Your task to perform on an android device: open app "Google Play Music" (install if not already installed) Image 0: 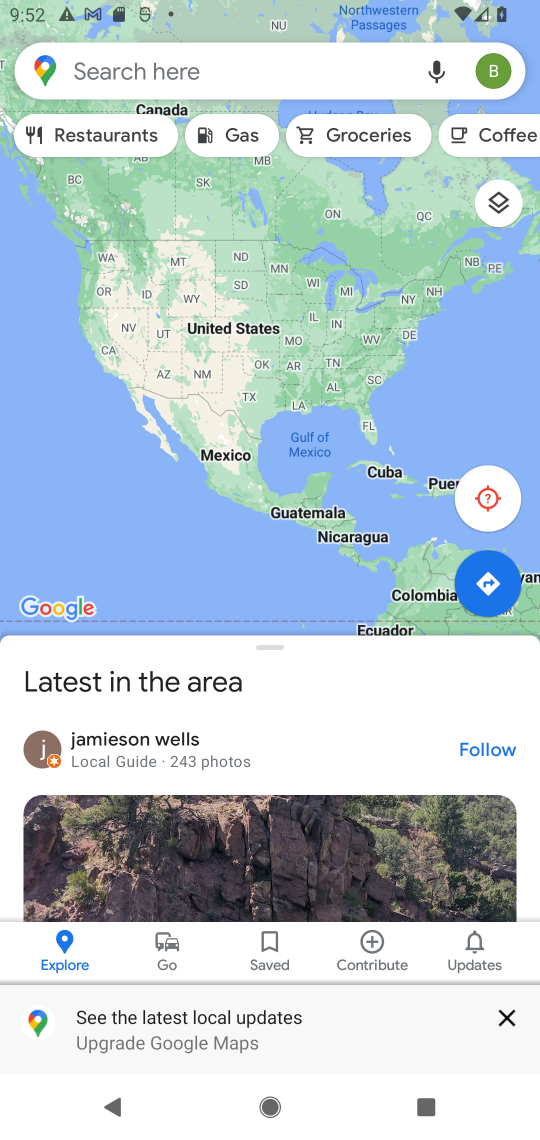
Step 0: press home button
Your task to perform on an android device: open app "Google Play Music" (install if not already installed) Image 1: 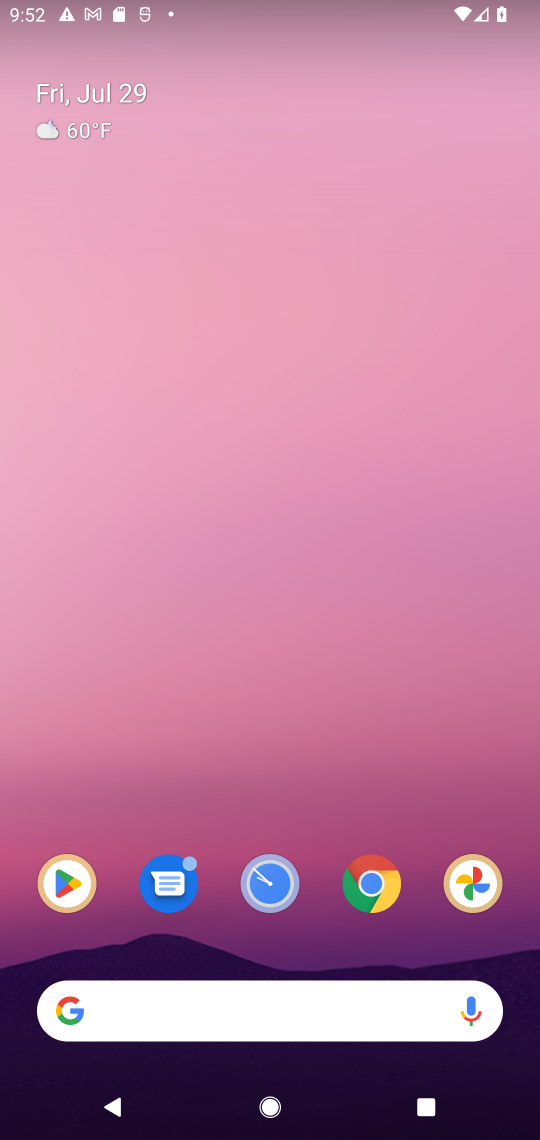
Step 1: click (69, 916)
Your task to perform on an android device: open app "Google Play Music" (install if not already installed) Image 2: 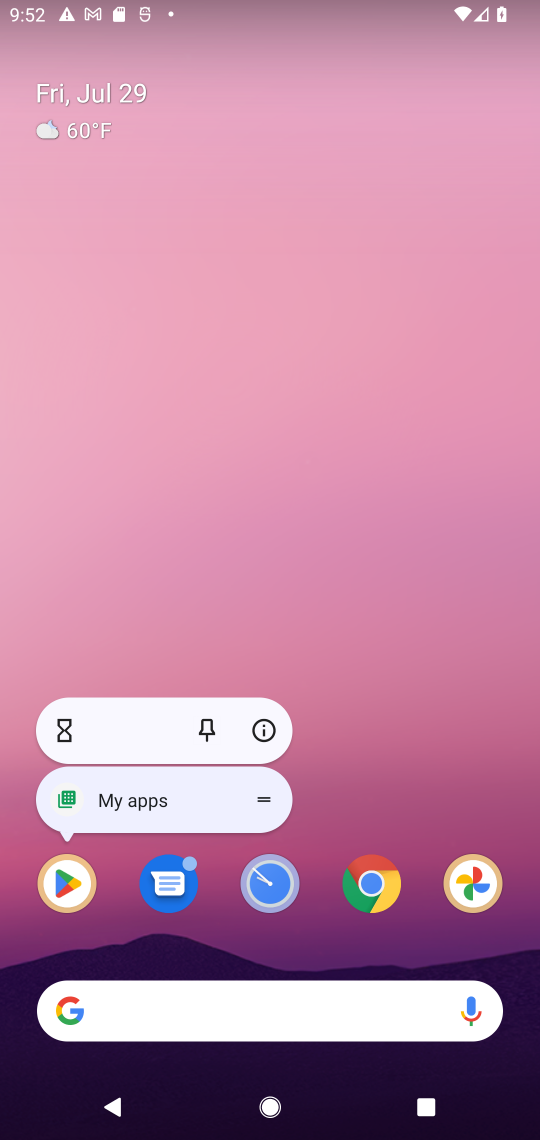
Step 2: click (35, 876)
Your task to perform on an android device: open app "Google Play Music" (install if not already installed) Image 3: 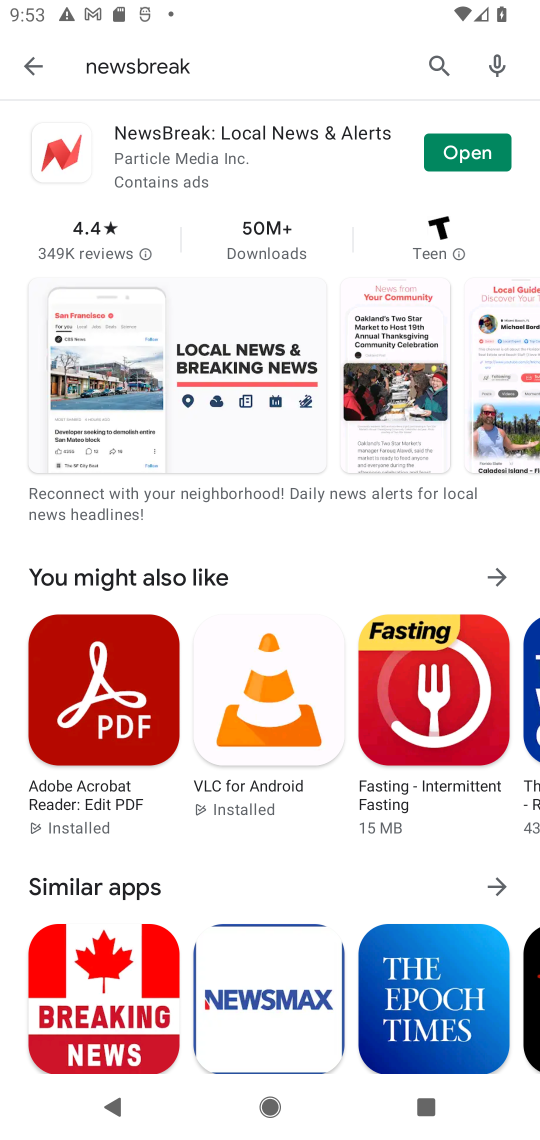
Step 3: click (182, 73)
Your task to perform on an android device: open app "Google Play Music" (install if not already installed) Image 4: 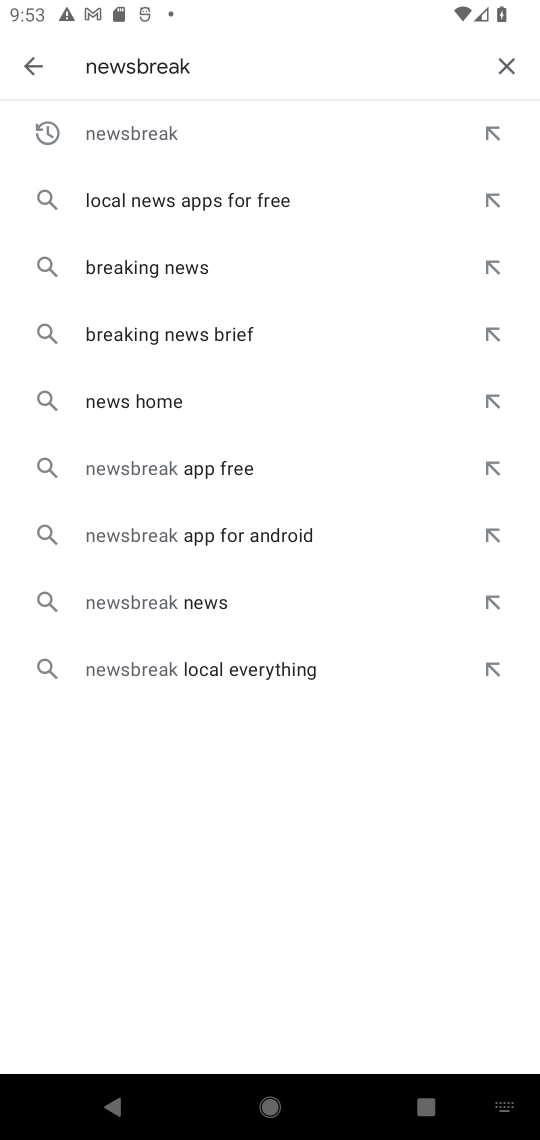
Step 4: click (503, 60)
Your task to perform on an android device: open app "Google Play Music" (install if not already installed) Image 5: 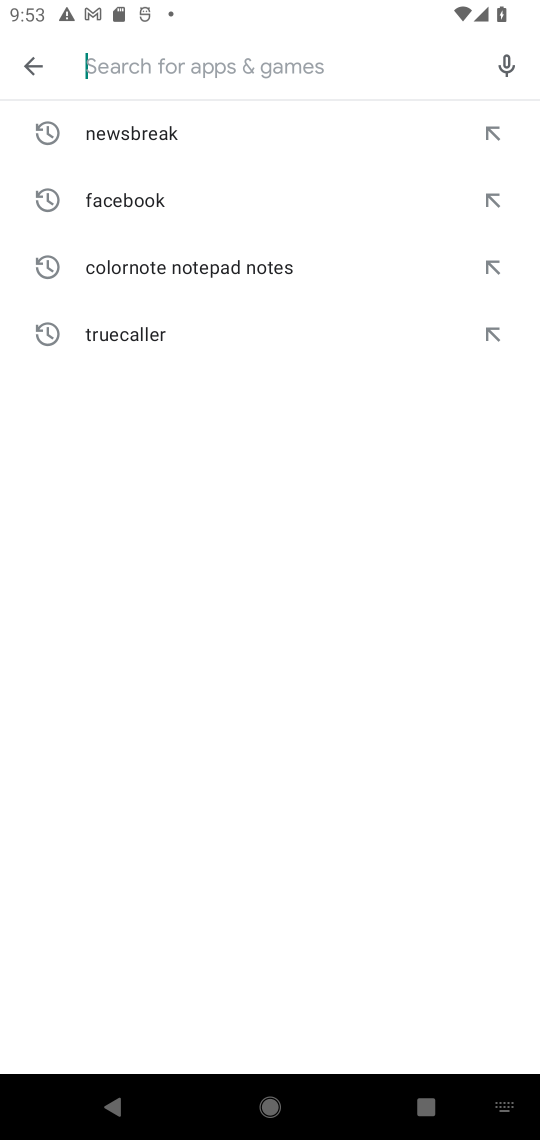
Step 5: type "google play music"
Your task to perform on an android device: open app "Google Play Music" (install if not already installed) Image 6: 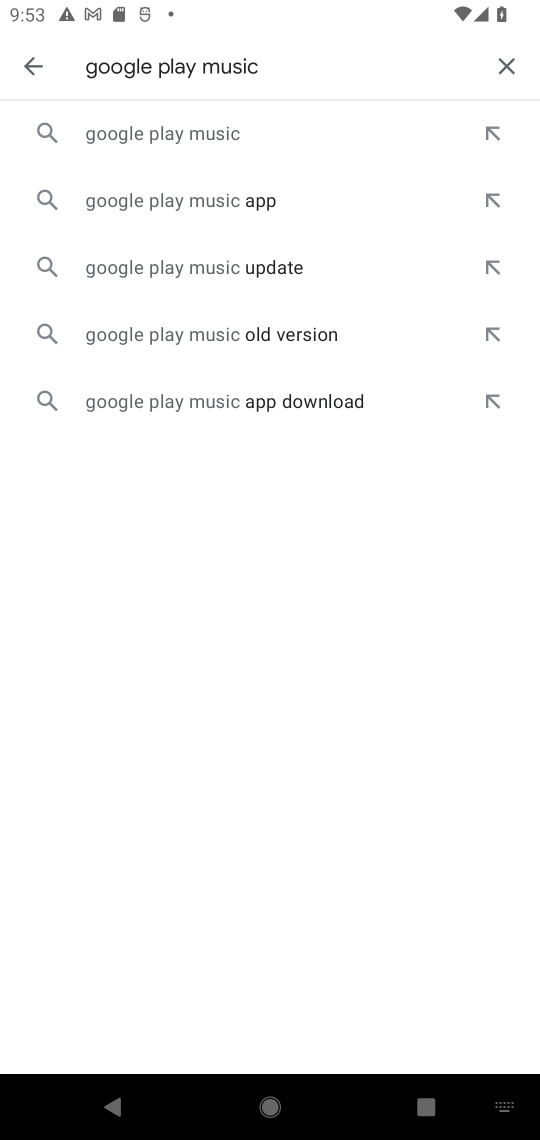
Step 6: click (127, 140)
Your task to perform on an android device: open app "Google Play Music" (install if not already installed) Image 7: 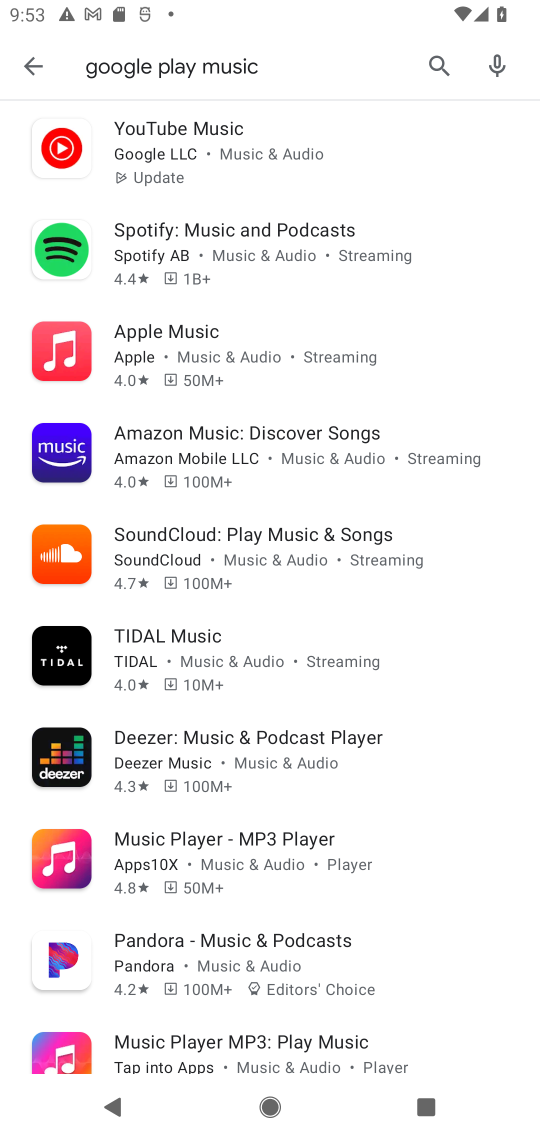
Step 7: task complete